Your task to perform on an android device: change your default location settings in chrome Image 0: 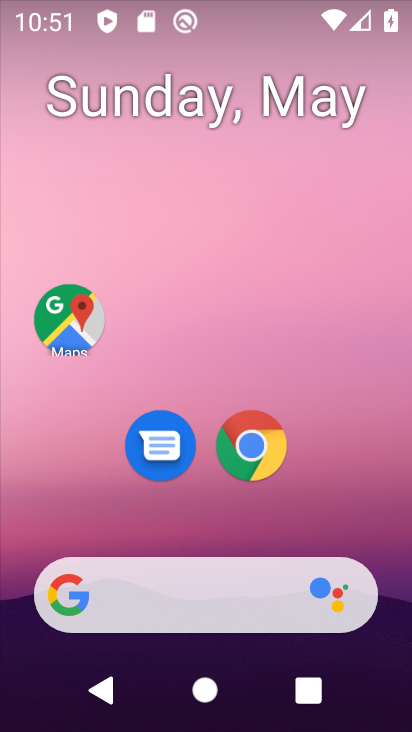
Step 0: click (264, 454)
Your task to perform on an android device: change your default location settings in chrome Image 1: 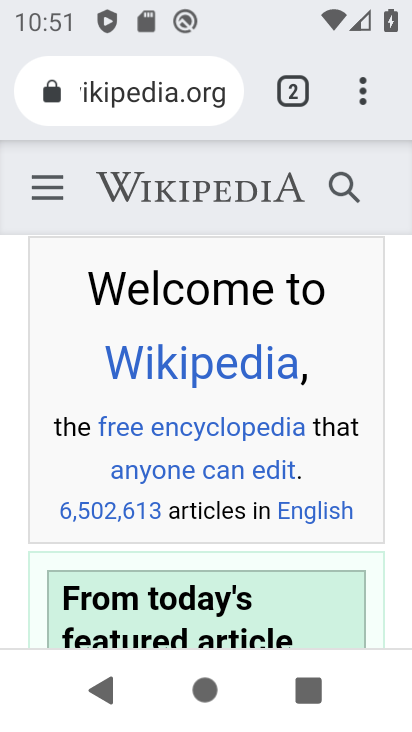
Step 1: drag from (364, 89) to (101, 485)
Your task to perform on an android device: change your default location settings in chrome Image 2: 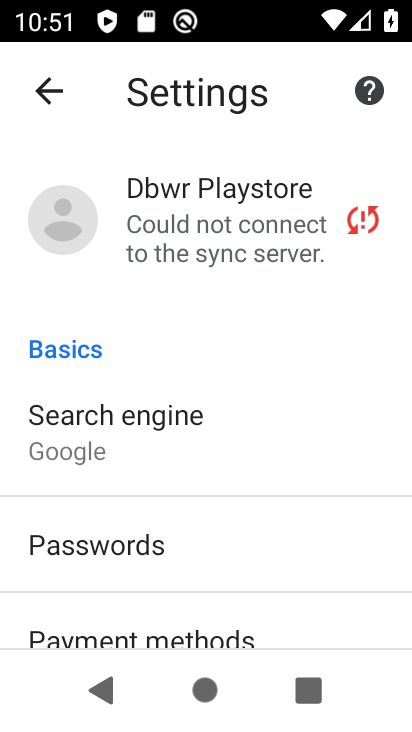
Step 2: drag from (316, 622) to (301, 170)
Your task to perform on an android device: change your default location settings in chrome Image 3: 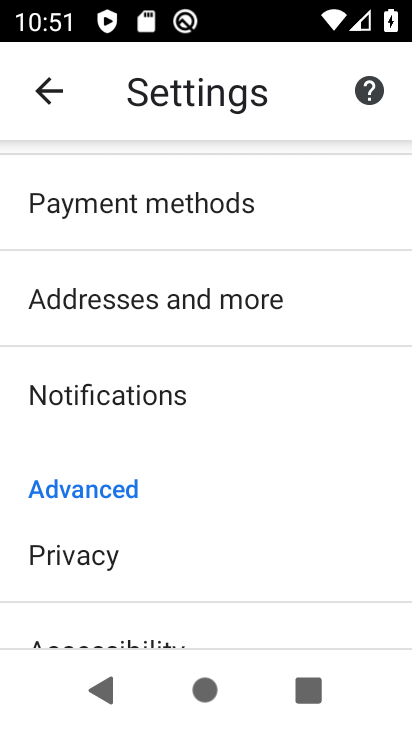
Step 3: drag from (179, 606) to (287, 239)
Your task to perform on an android device: change your default location settings in chrome Image 4: 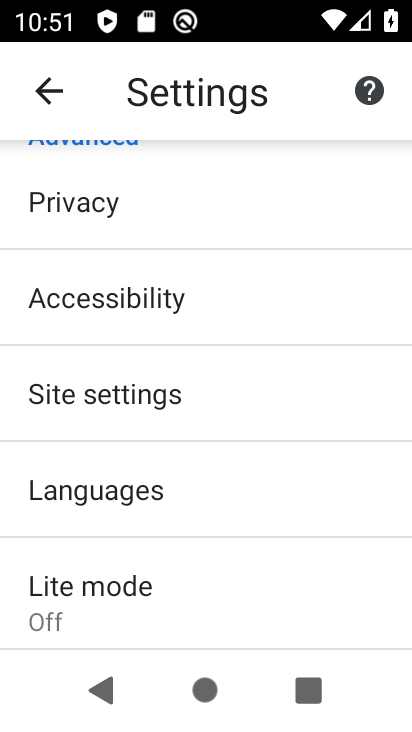
Step 4: click (115, 394)
Your task to perform on an android device: change your default location settings in chrome Image 5: 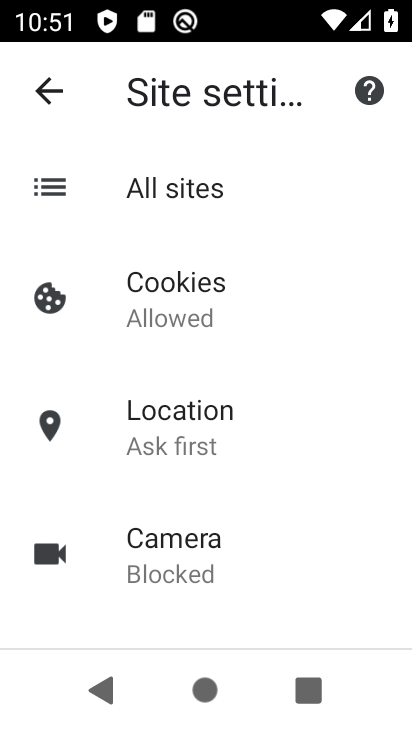
Step 5: click (189, 424)
Your task to perform on an android device: change your default location settings in chrome Image 6: 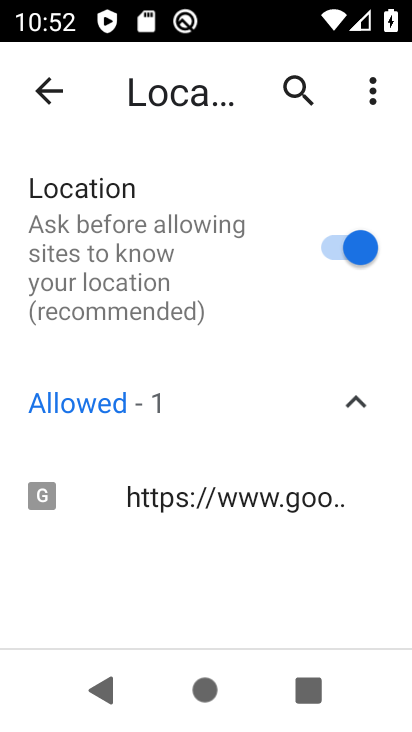
Step 6: task complete